Your task to perform on an android device: Open accessibility settings Image 0: 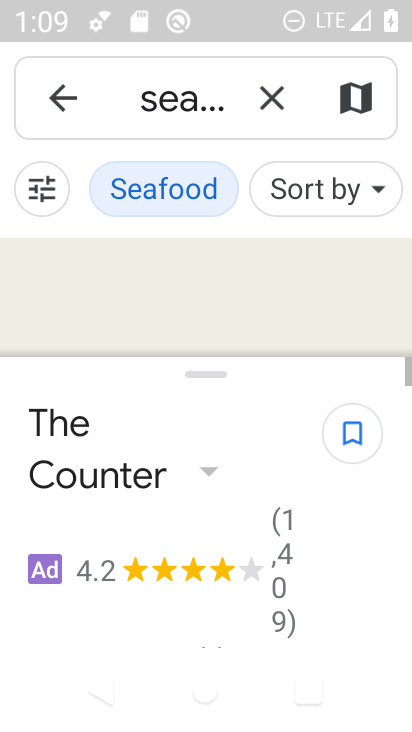
Step 0: press home button
Your task to perform on an android device: Open accessibility settings Image 1: 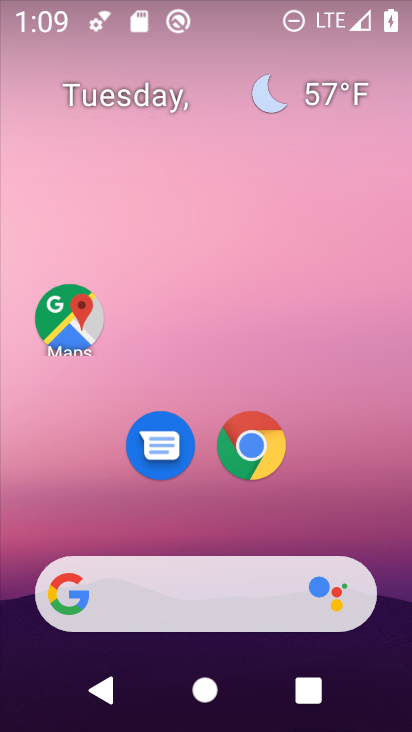
Step 1: drag from (390, 546) to (395, 144)
Your task to perform on an android device: Open accessibility settings Image 2: 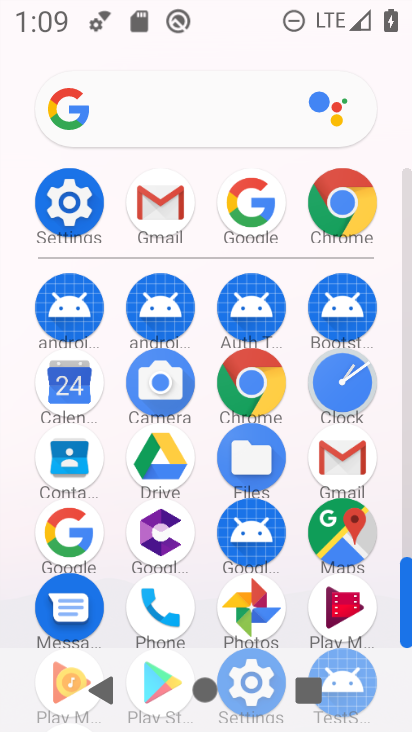
Step 2: drag from (383, 609) to (396, 405)
Your task to perform on an android device: Open accessibility settings Image 3: 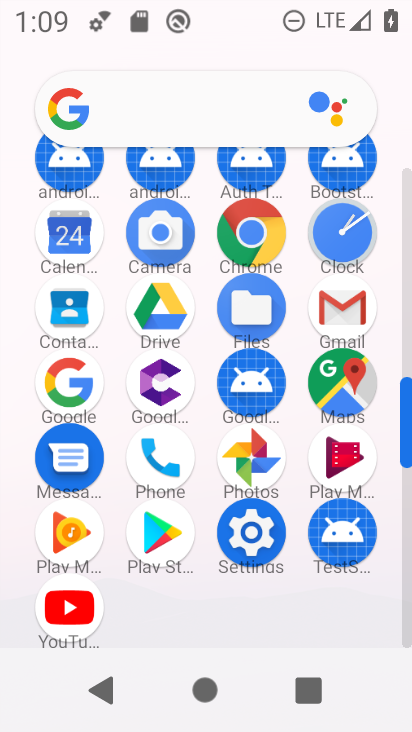
Step 3: click (258, 546)
Your task to perform on an android device: Open accessibility settings Image 4: 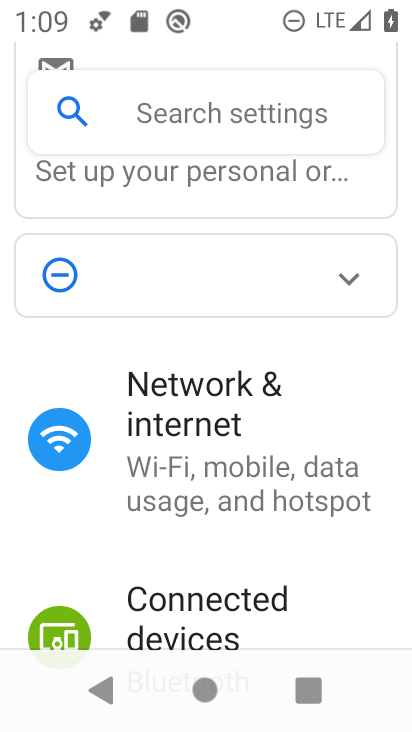
Step 4: drag from (375, 596) to (375, 432)
Your task to perform on an android device: Open accessibility settings Image 5: 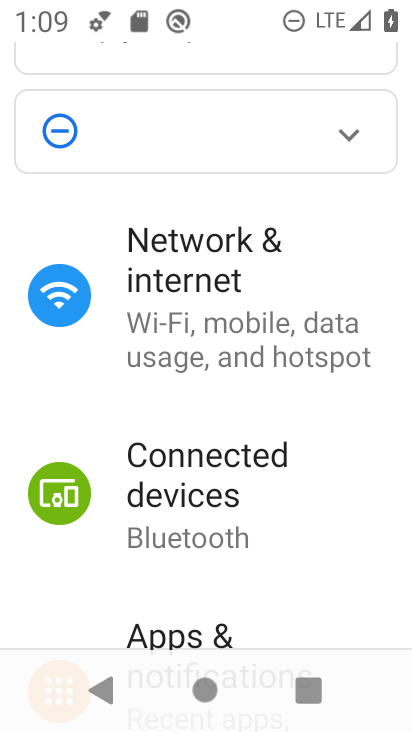
Step 5: drag from (359, 607) to (356, 454)
Your task to perform on an android device: Open accessibility settings Image 6: 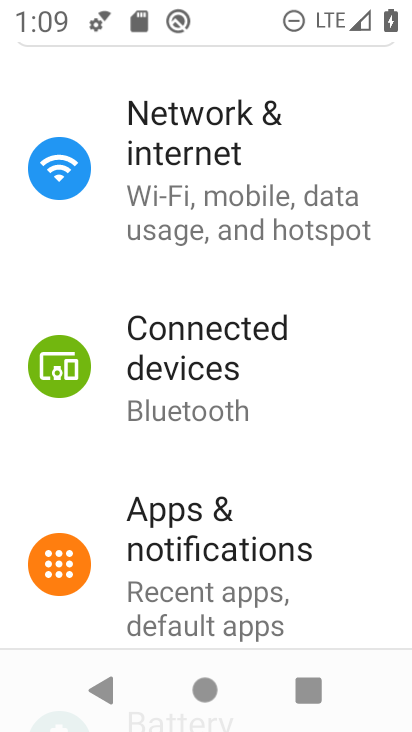
Step 6: drag from (371, 626) to (357, 465)
Your task to perform on an android device: Open accessibility settings Image 7: 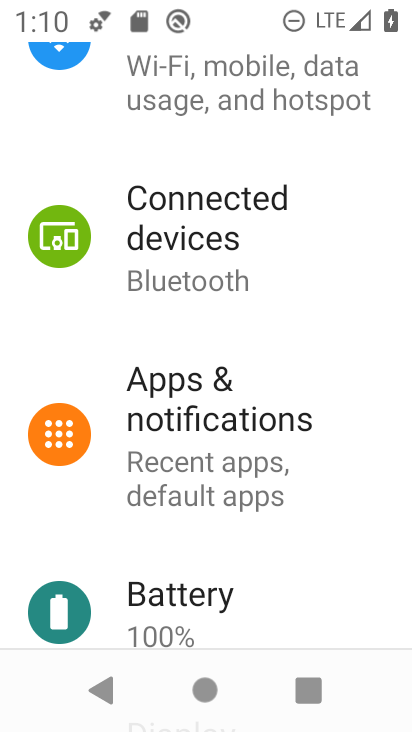
Step 7: drag from (344, 596) to (334, 449)
Your task to perform on an android device: Open accessibility settings Image 8: 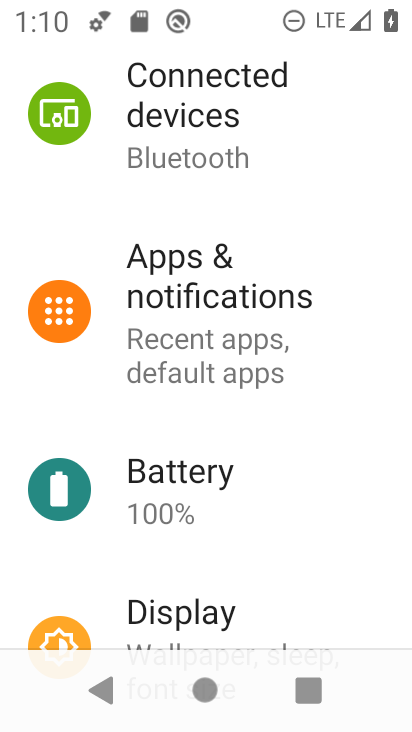
Step 8: drag from (352, 608) to (351, 475)
Your task to perform on an android device: Open accessibility settings Image 9: 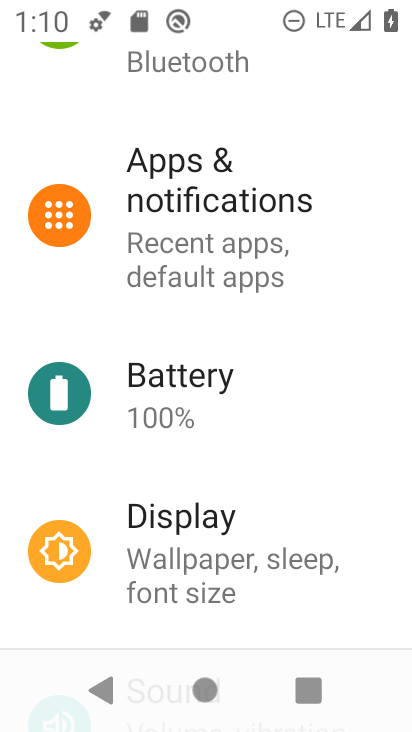
Step 9: drag from (372, 617) to (369, 462)
Your task to perform on an android device: Open accessibility settings Image 10: 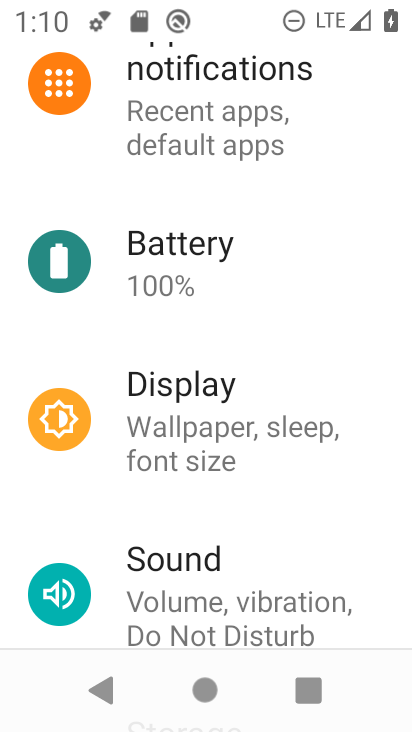
Step 10: drag from (381, 567) to (379, 446)
Your task to perform on an android device: Open accessibility settings Image 11: 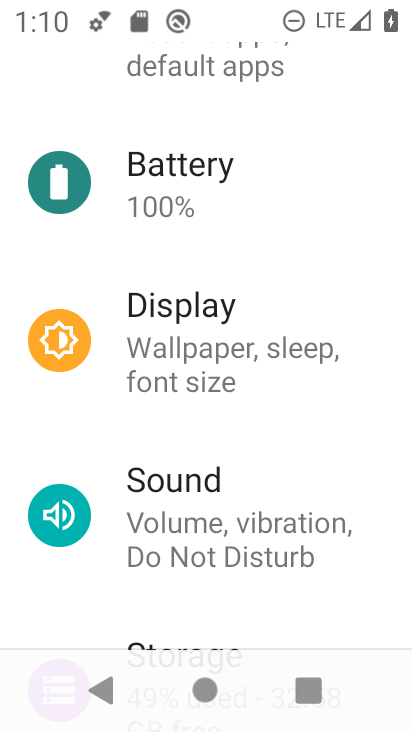
Step 11: drag from (375, 576) to (388, 455)
Your task to perform on an android device: Open accessibility settings Image 12: 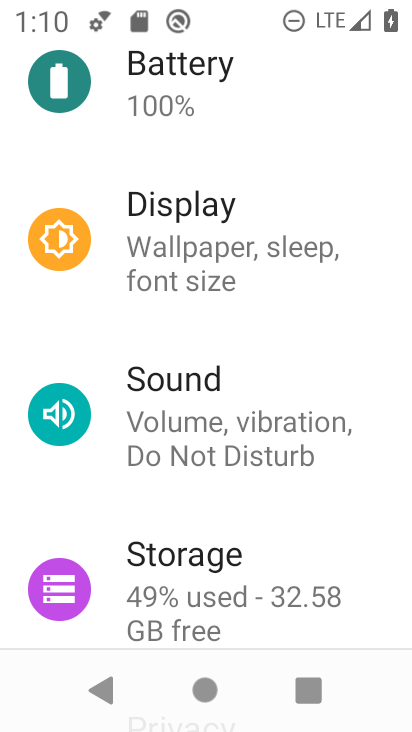
Step 12: drag from (368, 603) to (382, 496)
Your task to perform on an android device: Open accessibility settings Image 13: 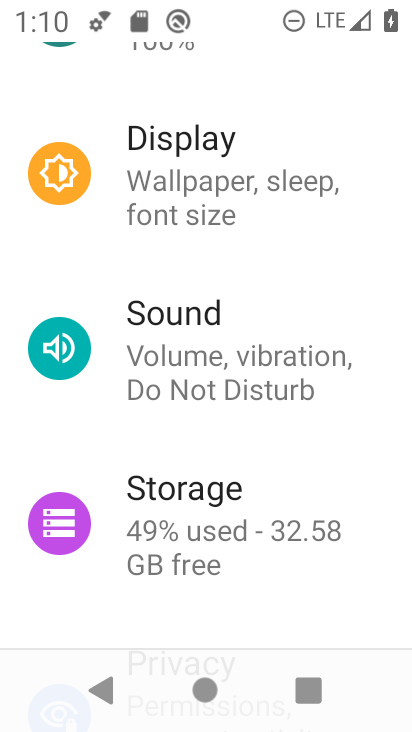
Step 13: drag from (367, 612) to (374, 474)
Your task to perform on an android device: Open accessibility settings Image 14: 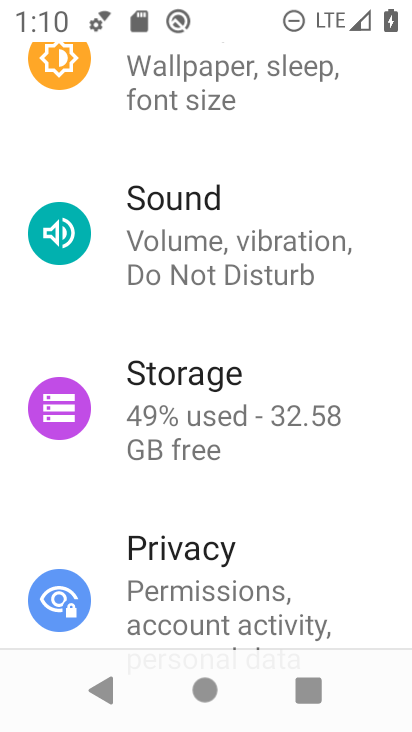
Step 14: drag from (370, 607) to (349, 426)
Your task to perform on an android device: Open accessibility settings Image 15: 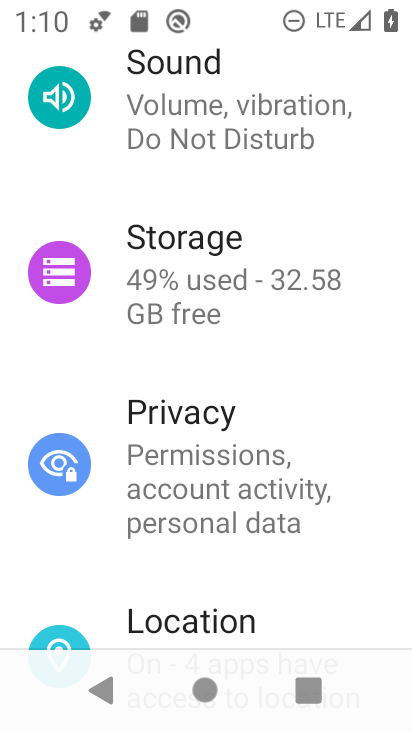
Step 15: drag from (345, 567) to (359, 402)
Your task to perform on an android device: Open accessibility settings Image 16: 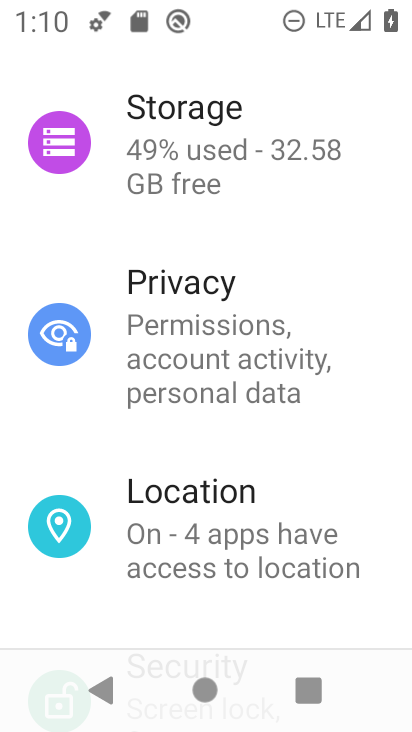
Step 16: drag from (357, 606) to (368, 432)
Your task to perform on an android device: Open accessibility settings Image 17: 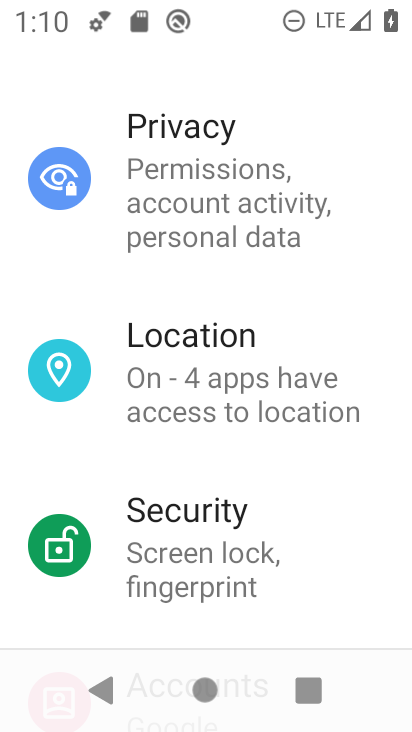
Step 17: drag from (331, 589) to (345, 449)
Your task to perform on an android device: Open accessibility settings Image 18: 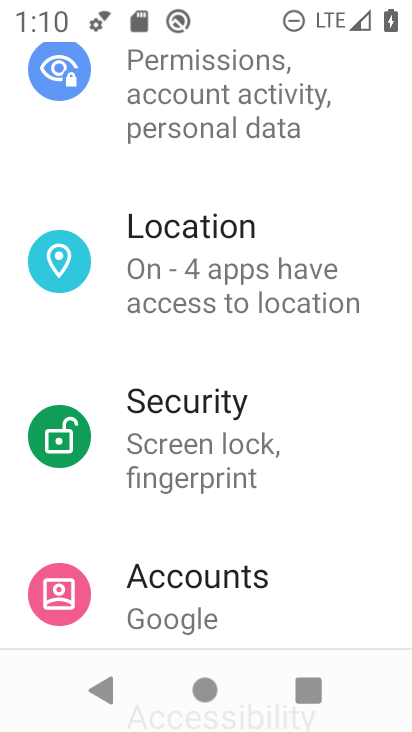
Step 18: drag from (333, 593) to (341, 406)
Your task to perform on an android device: Open accessibility settings Image 19: 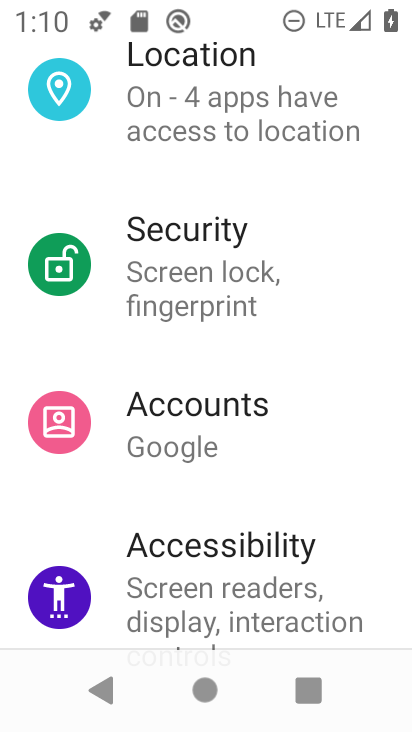
Step 19: drag from (355, 575) to (357, 401)
Your task to perform on an android device: Open accessibility settings Image 20: 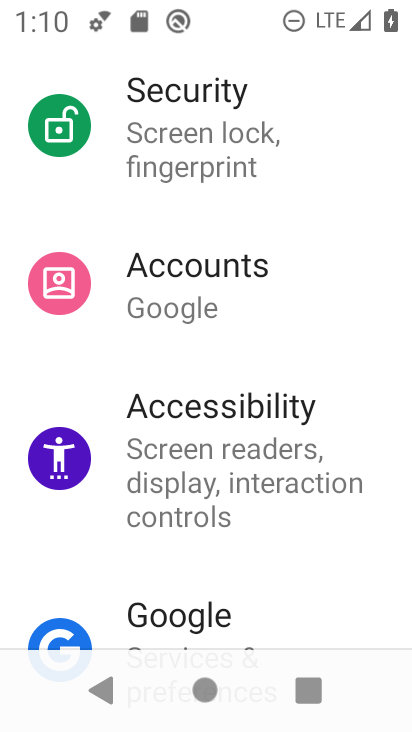
Step 20: click (254, 455)
Your task to perform on an android device: Open accessibility settings Image 21: 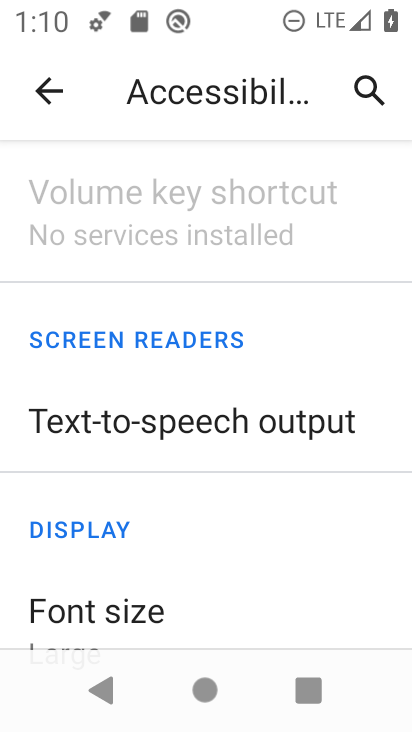
Step 21: task complete